Your task to perform on an android device: Open Wikipedia Image 0: 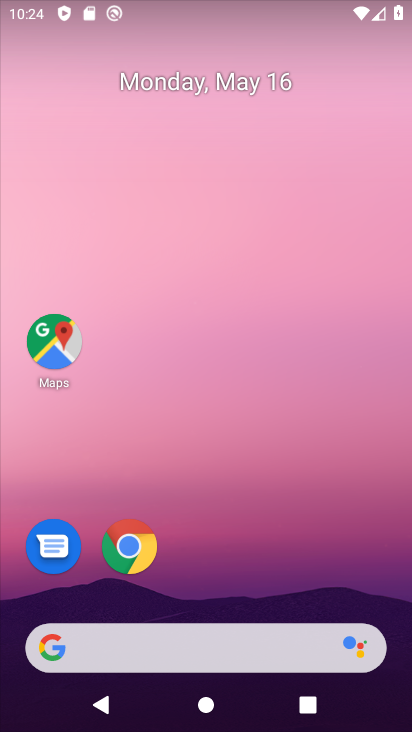
Step 0: click (133, 569)
Your task to perform on an android device: Open Wikipedia Image 1: 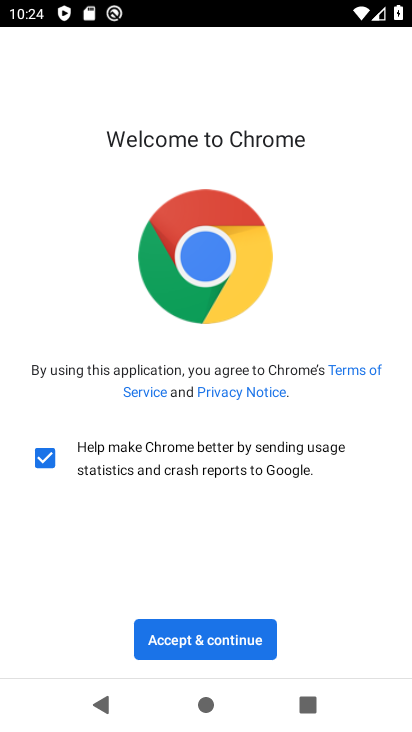
Step 1: click (216, 654)
Your task to perform on an android device: Open Wikipedia Image 2: 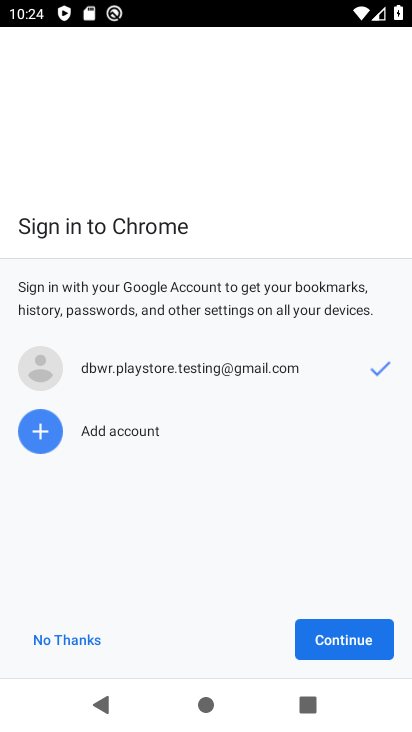
Step 2: click (333, 638)
Your task to perform on an android device: Open Wikipedia Image 3: 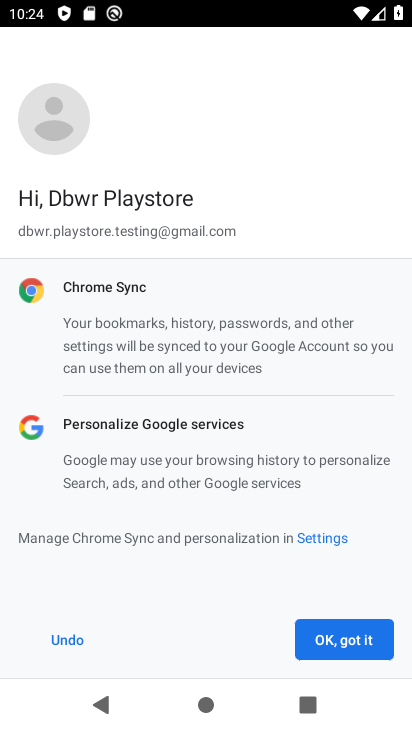
Step 3: click (347, 640)
Your task to perform on an android device: Open Wikipedia Image 4: 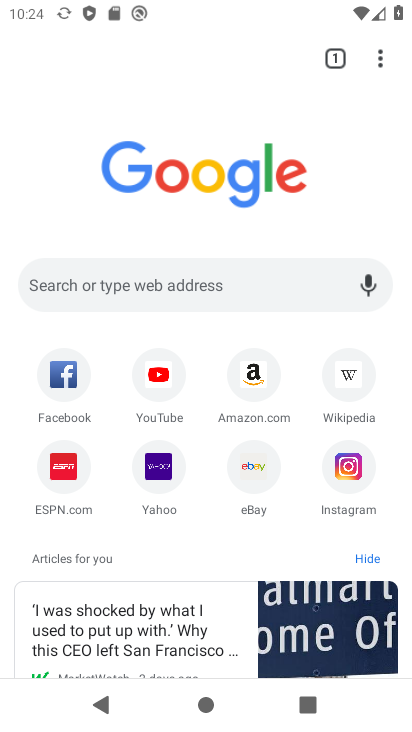
Step 4: click (330, 386)
Your task to perform on an android device: Open Wikipedia Image 5: 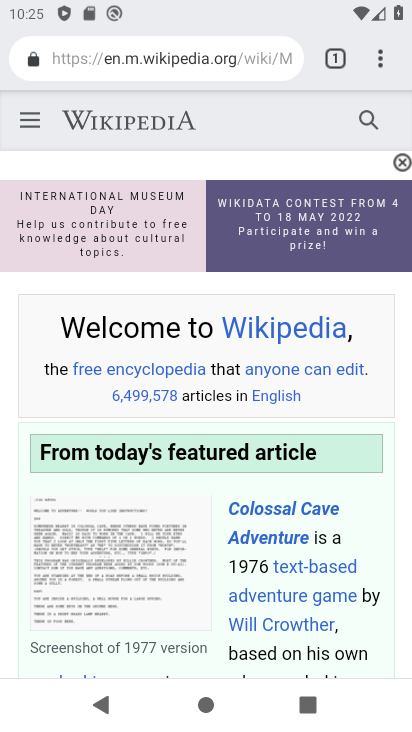
Step 5: task complete